Your task to perform on an android device: Open accessibility settings Image 0: 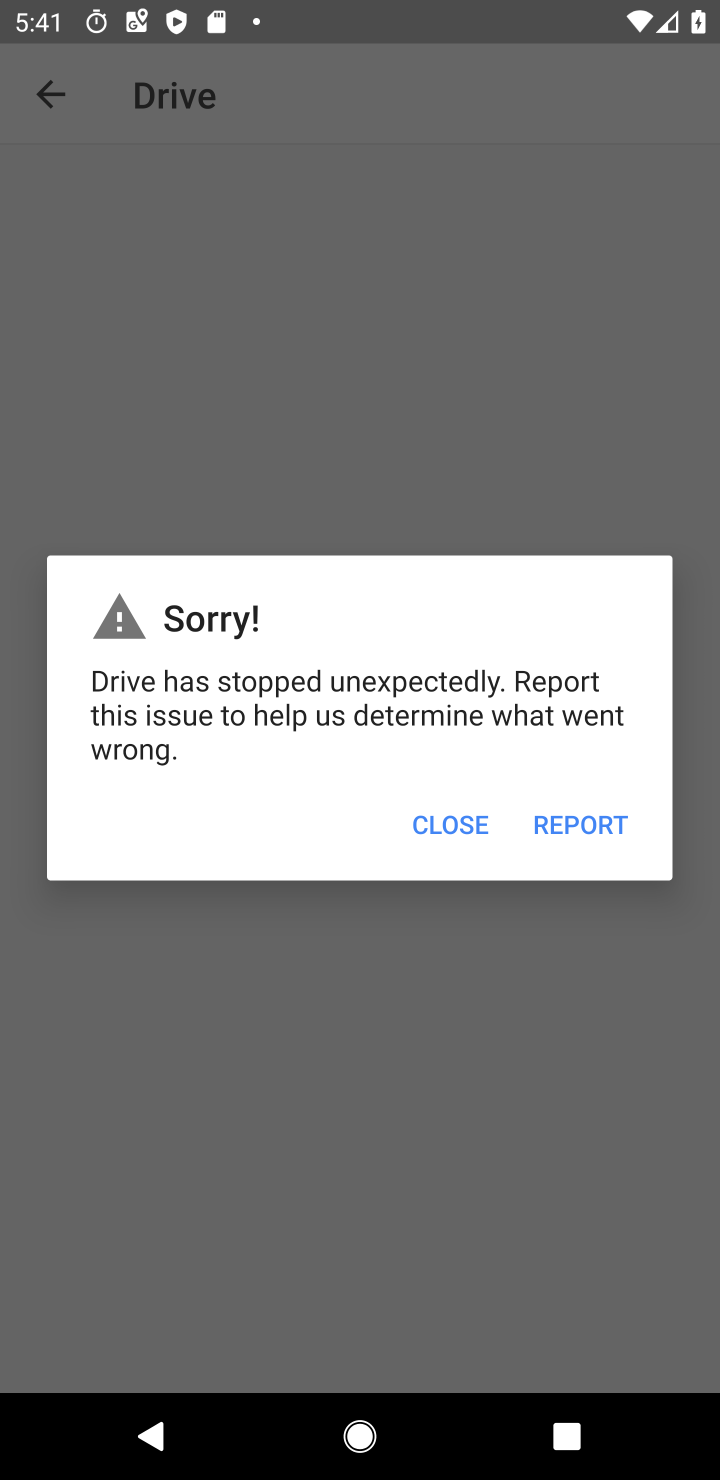
Step 0: press home button
Your task to perform on an android device: Open accessibility settings Image 1: 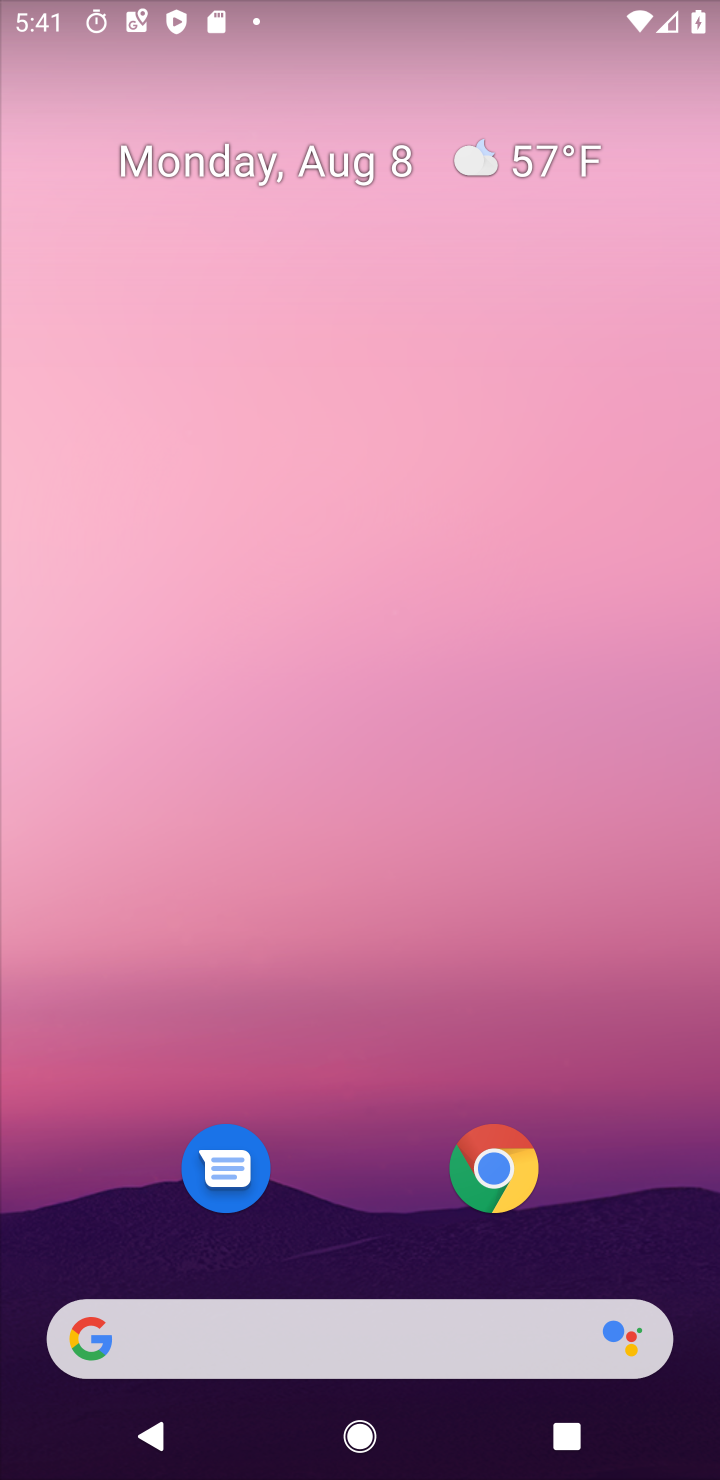
Step 1: drag from (364, 1295) to (379, 401)
Your task to perform on an android device: Open accessibility settings Image 2: 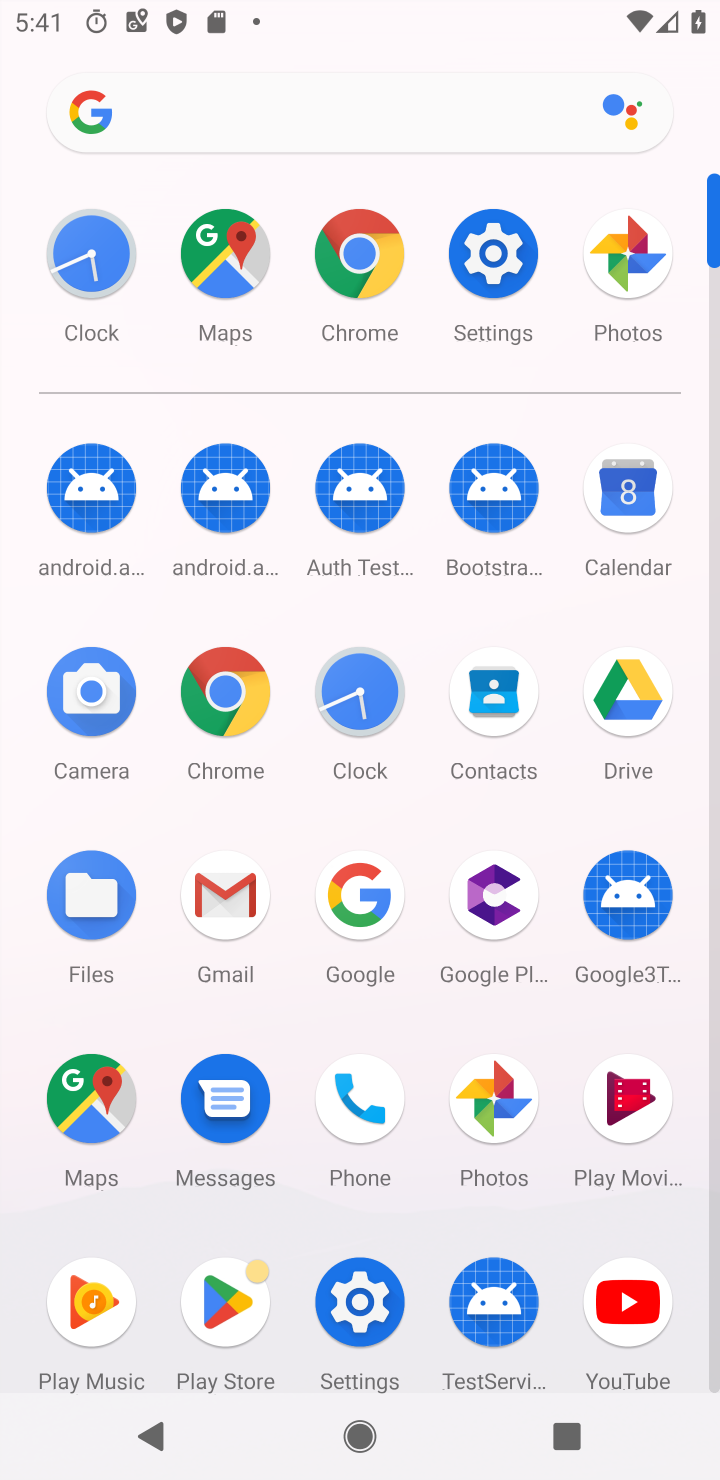
Step 2: click (365, 1303)
Your task to perform on an android device: Open accessibility settings Image 3: 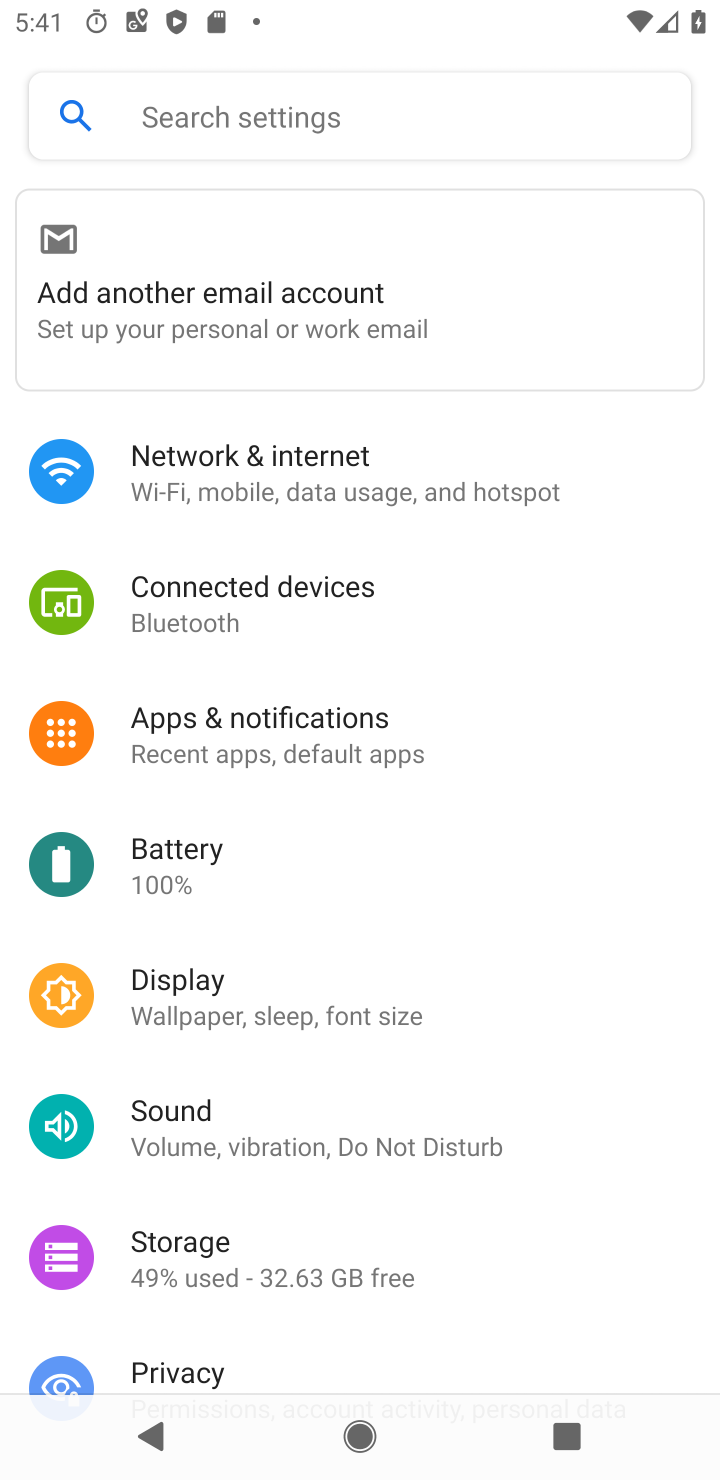
Step 3: drag from (388, 516) to (385, 230)
Your task to perform on an android device: Open accessibility settings Image 4: 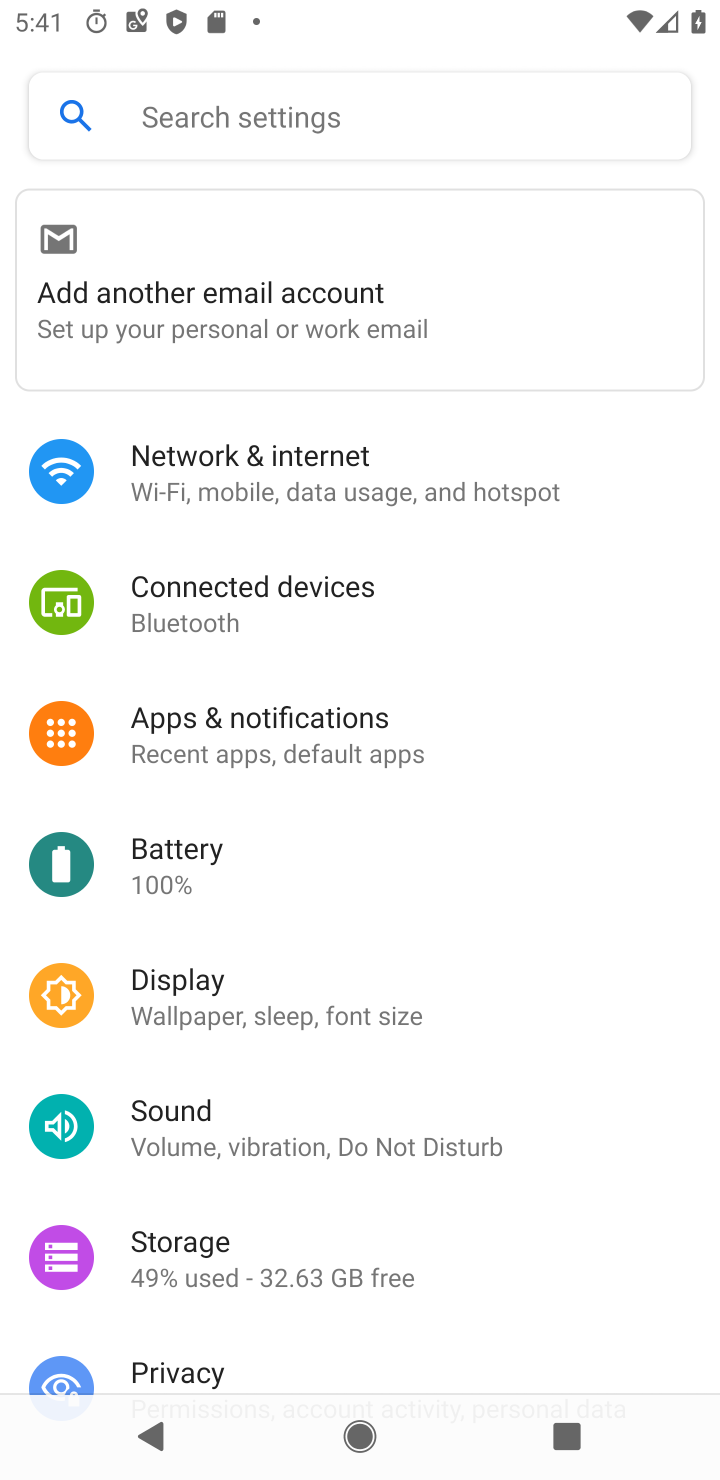
Step 4: drag from (370, 1304) to (389, 323)
Your task to perform on an android device: Open accessibility settings Image 5: 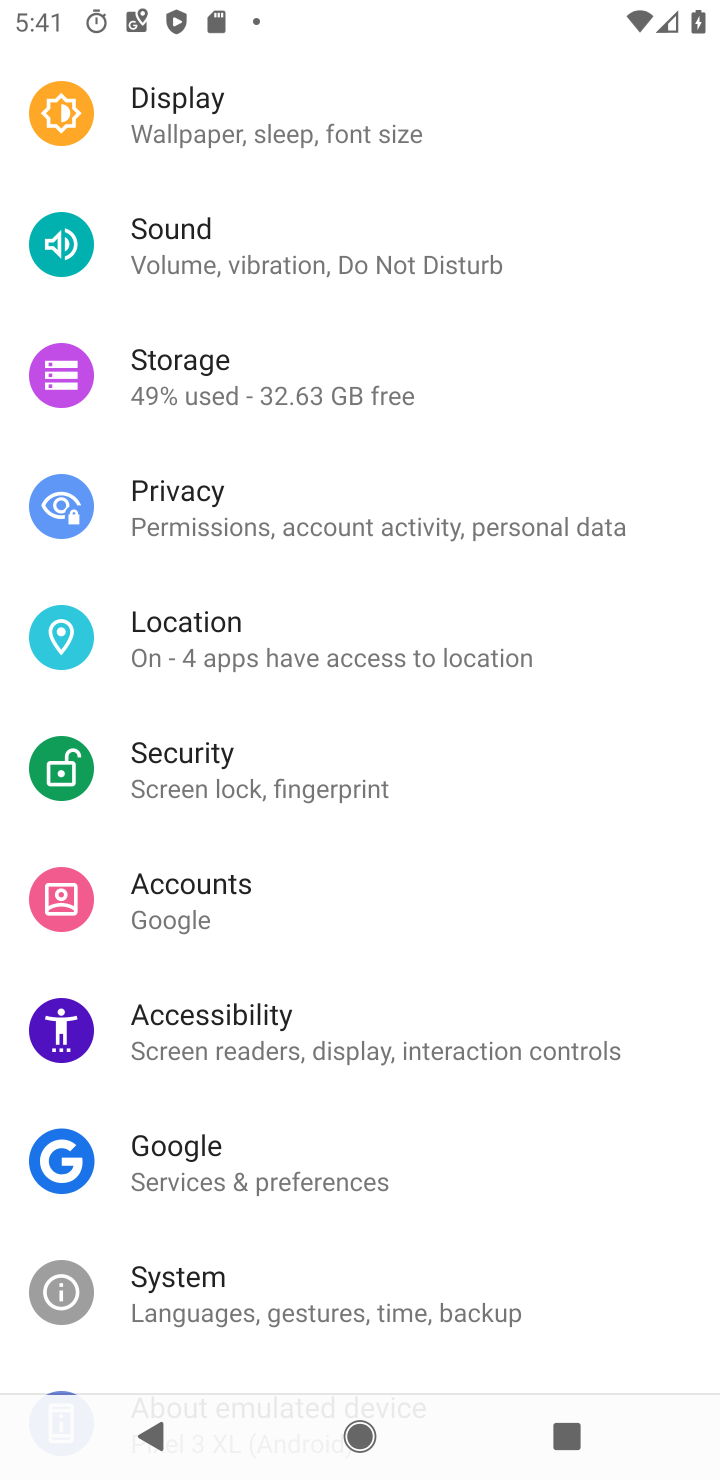
Step 5: click (173, 1011)
Your task to perform on an android device: Open accessibility settings Image 6: 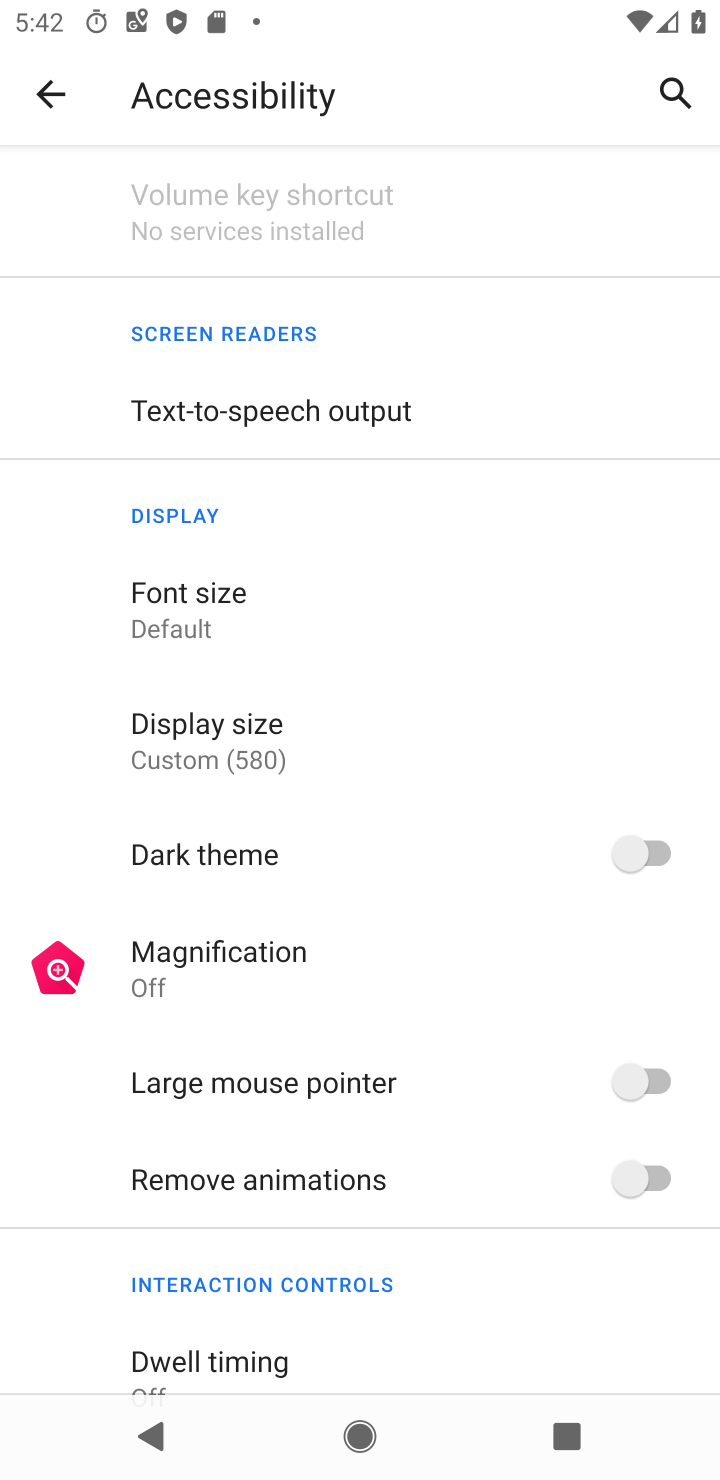
Step 6: task complete